Your task to perform on an android device: Do I have any events today? Image 0: 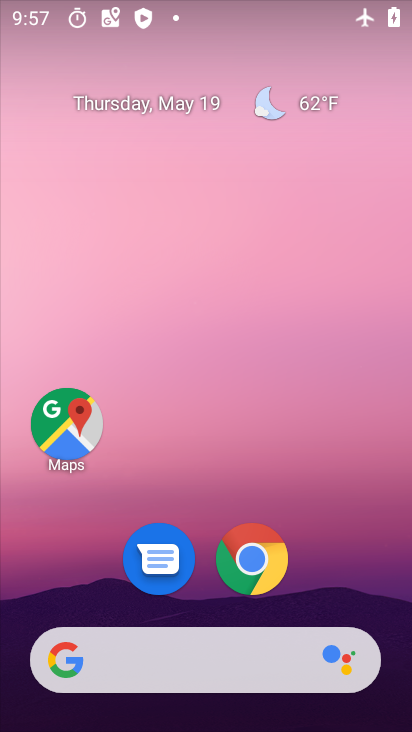
Step 0: drag from (363, 553) to (267, 49)
Your task to perform on an android device: Do I have any events today? Image 1: 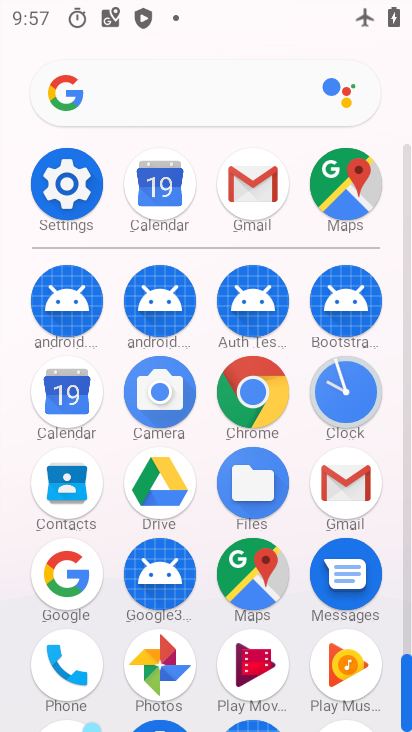
Step 1: click (74, 401)
Your task to perform on an android device: Do I have any events today? Image 2: 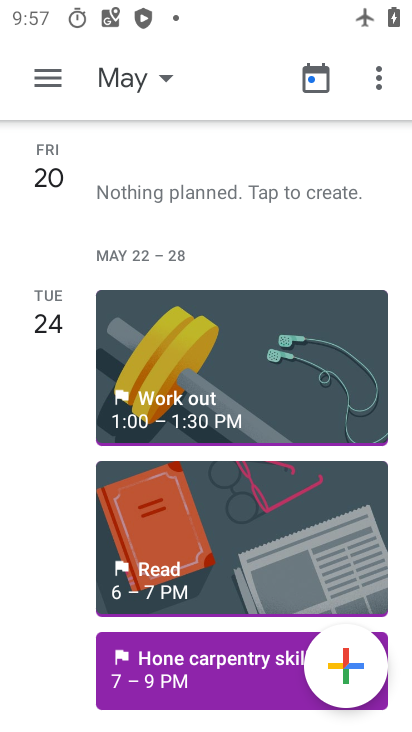
Step 2: drag from (164, 200) to (186, 490)
Your task to perform on an android device: Do I have any events today? Image 3: 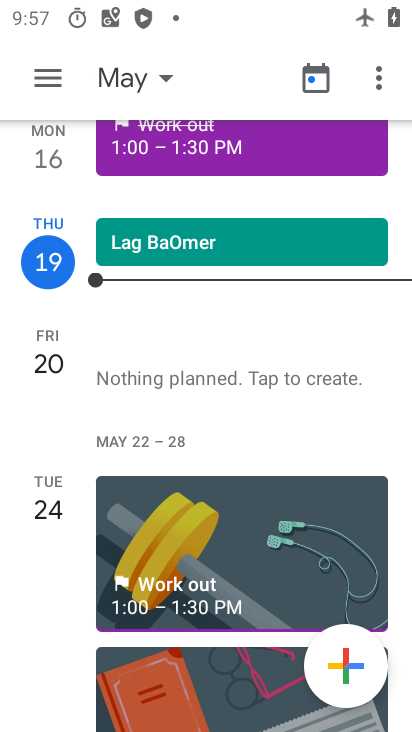
Step 3: click (43, 263)
Your task to perform on an android device: Do I have any events today? Image 4: 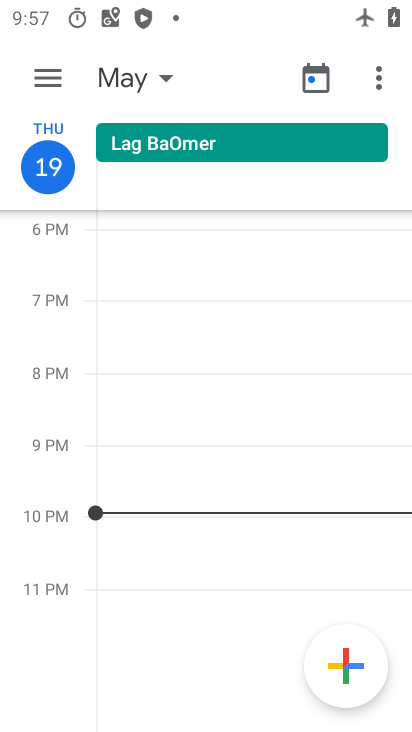
Step 4: task complete